Your task to perform on an android device: make emails show in primary in the gmail app Image 0: 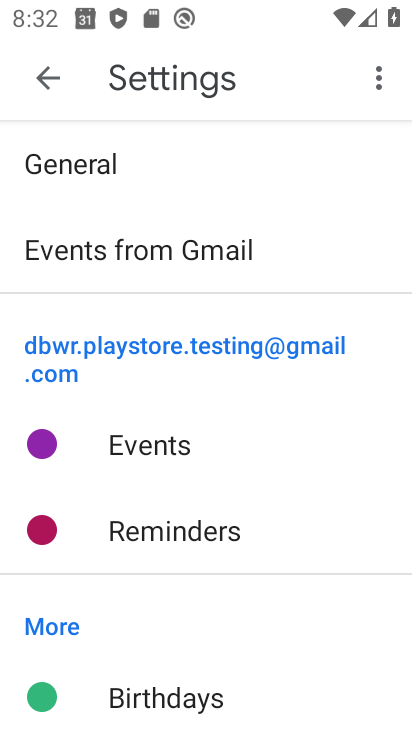
Step 0: press back button
Your task to perform on an android device: make emails show in primary in the gmail app Image 1: 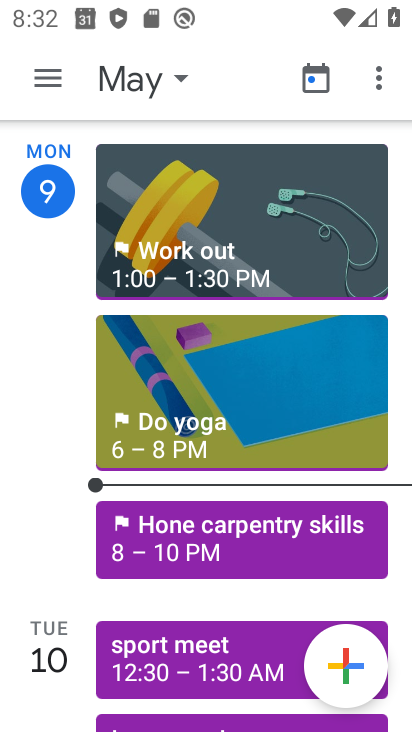
Step 1: press back button
Your task to perform on an android device: make emails show in primary in the gmail app Image 2: 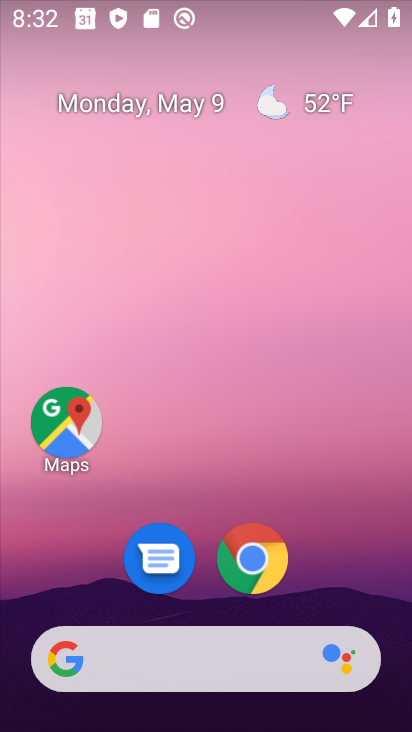
Step 2: drag from (179, 582) to (271, 69)
Your task to perform on an android device: make emails show in primary in the gmail app Image 3: 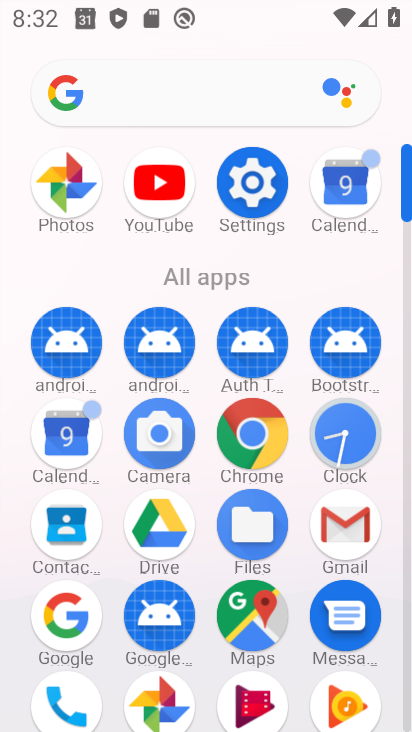
Step 3: click (351, 530)
Your task to perform on an android device: make emails show in primary in the gmail app Image 4: 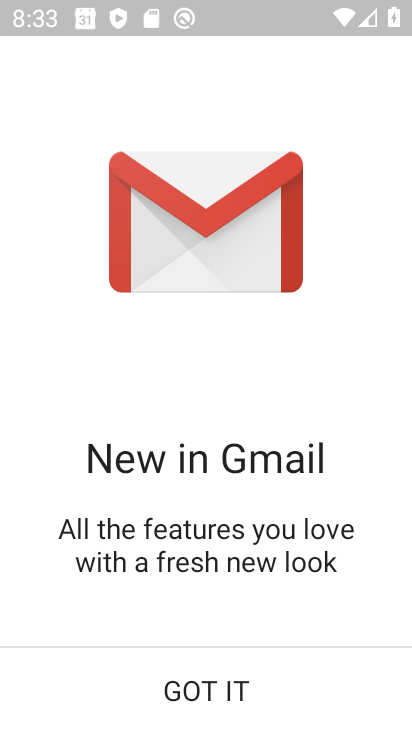
Step 4: click (222, 695)
Your task to perform on an android device: make emails show in primary in the gmail app Image 5: 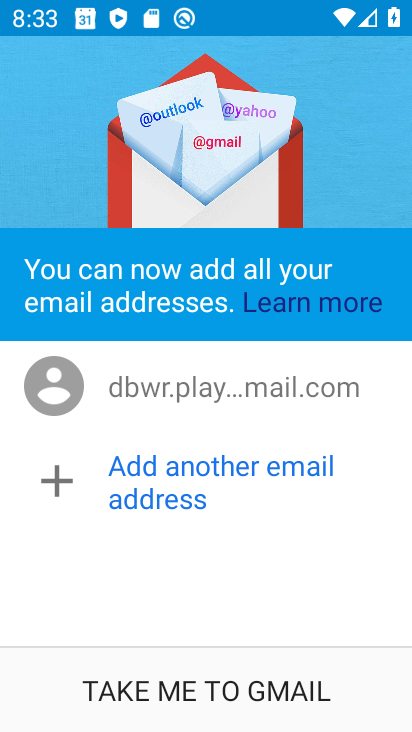
Step 5: click (172, 693)
Your task to perform on an android device: make emails show in primary in the gmail app Image 6: 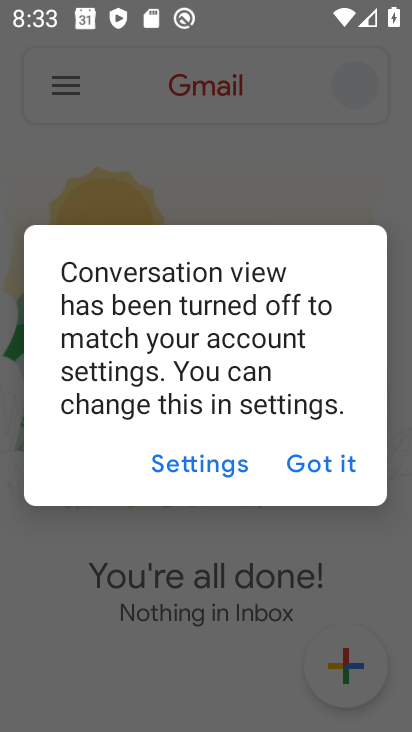
Step 6: click (299, 433)
Your task to perform on an android device: make emails show in primary in the gmail app Image 7: 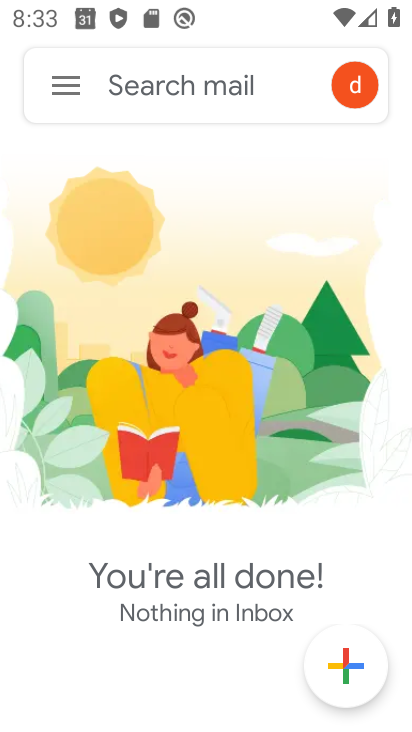
Step 7: click (65, 90)
Your task to perform on an android device: make emails show in primary in the gmail app Image 8: 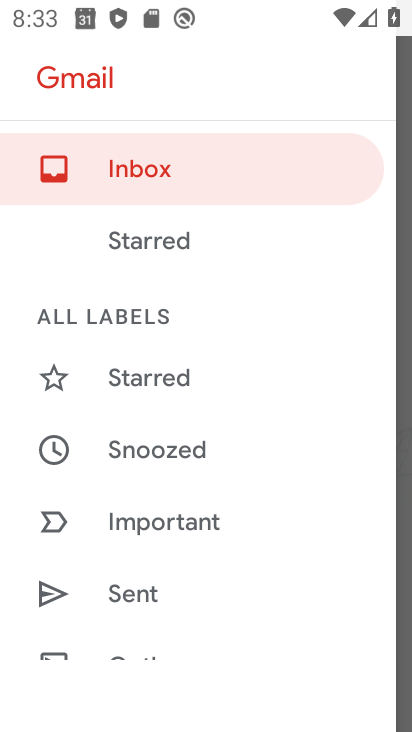
Step 8: drag from (153, 589) to (309, 39)
Your task to perform on an android device: make emails show in primary in the gmail app Image 9: 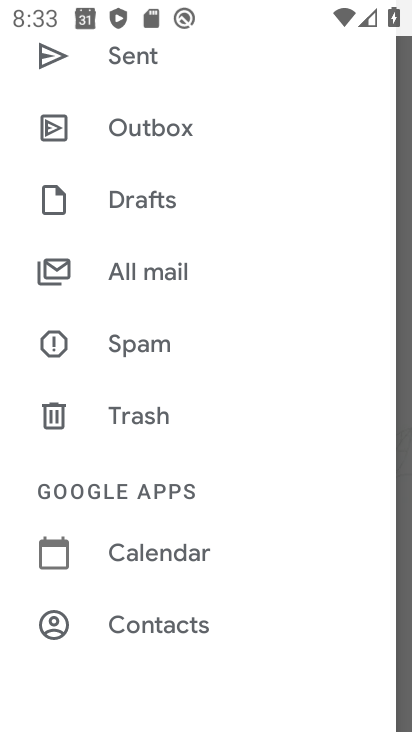
Step 9: drag from (181, 601) to (284, 18)
Your task to perform on an android device: make emails show in primary in the gmail app Image 10: 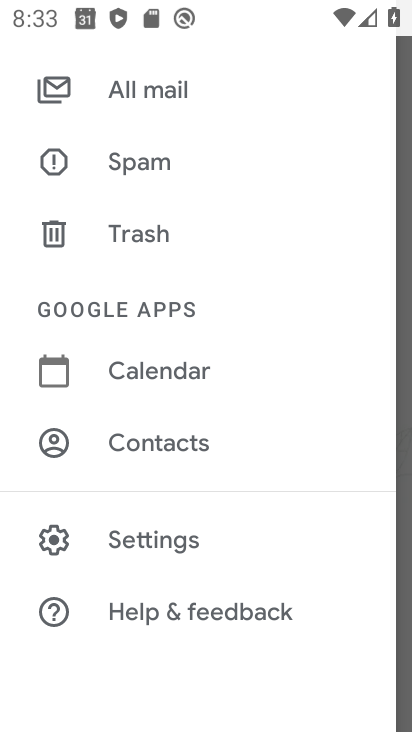
Step 10: click (151, 556)
Your task to perform on an android device: make emails show in primary in the gmail app Image 11: 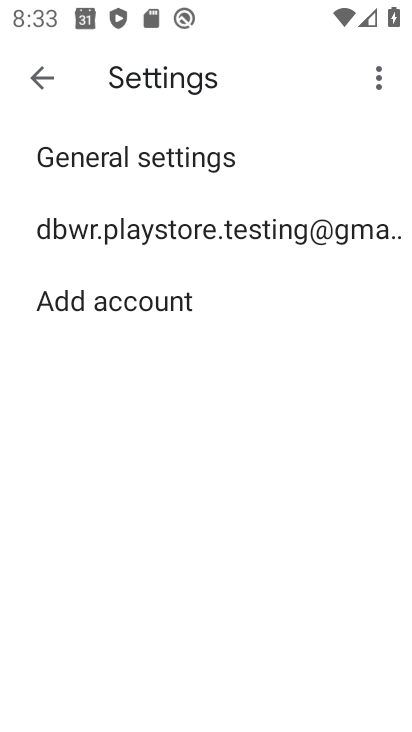
Step 11: click (191, 195)
Your task to perform on an android device: make emails show in primary in the gmail app Image 12: 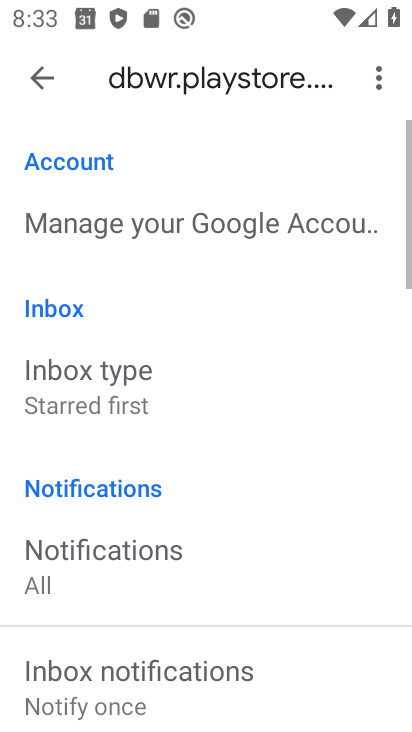
Step 12: task complete